Your task to perform on an android device: clear all cookies in the chrome app Image 0: 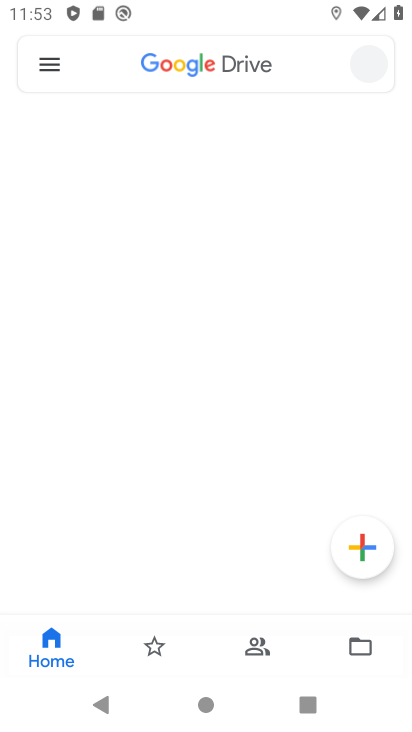
Step 0: drag from (217, 716) to (212, 71)
Your task to perform on an android device: clear all cookies in the chrome app Image 1: 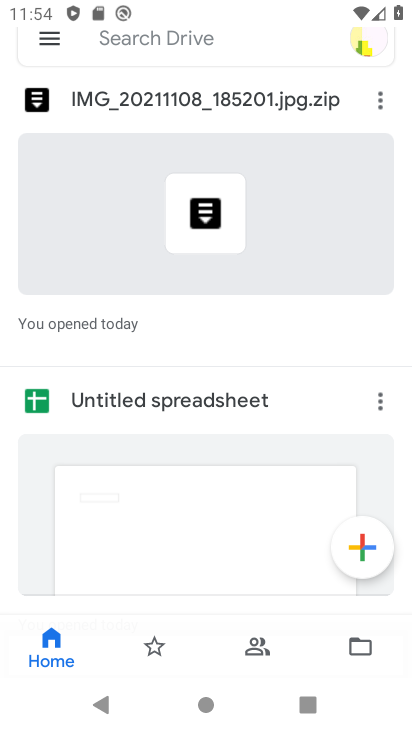
Step 1: press home button
Your task to perform on an android device: clear all cookies in the chrome app Image 2: 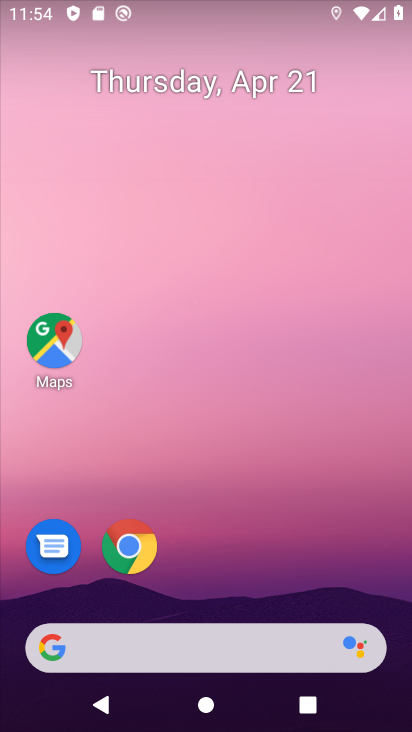
Step 2: click (129, 549)
Your task to perform on an android device: clear all cookies in the chrome app Image 3: 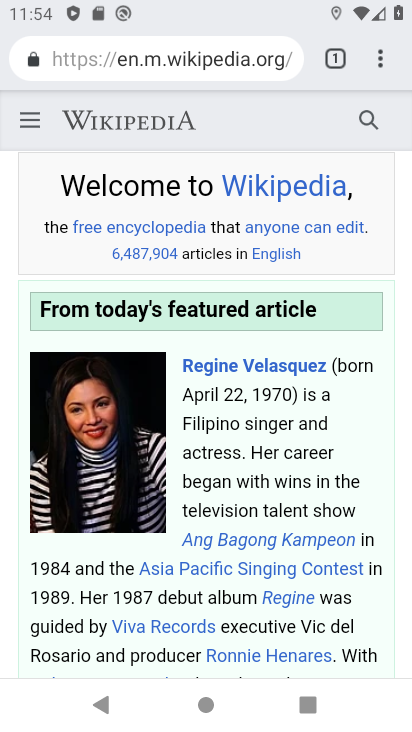
Step 3: drag from (378, 60) to (202, 319)
Your task to perform on an android device: clear all cookies in the chrome app Image 4: 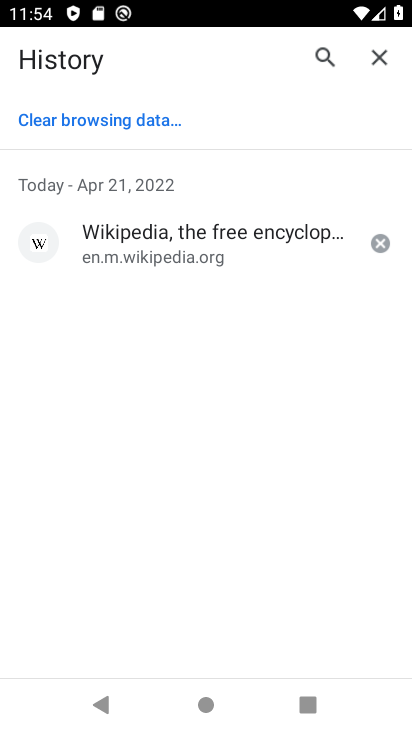
Step 4: click (112, 113)
Your task to perform on an android device: clear all cookies in the chrome app Image 5: 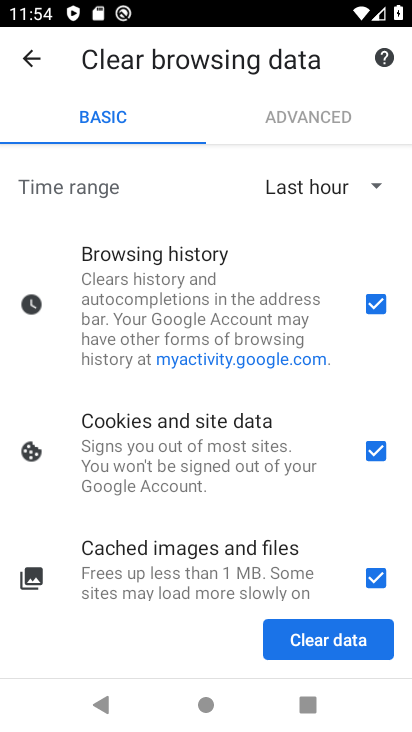
Step 5: click (378, 576)
Your task to perform on an android device: clear all cookies in the chrome app Image 6: 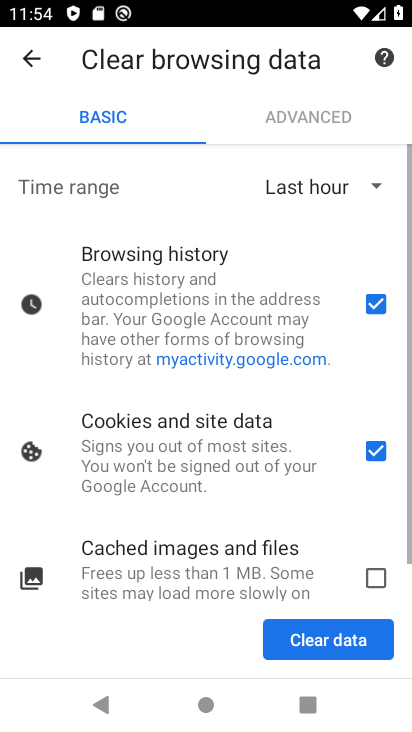
Step 6: click (378, 301)
Your task to perform on an android device: clear all cookies in the chrome app Image 7: 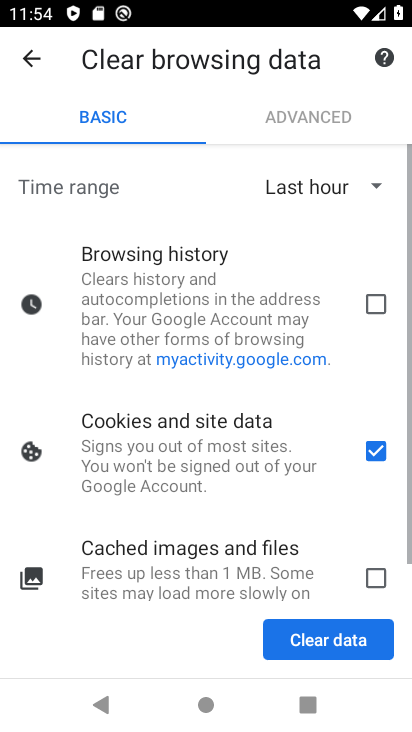
Step 7: click (330, 643)
Your task to perform on an android device: clear all cookies in the chrome app Image 8: 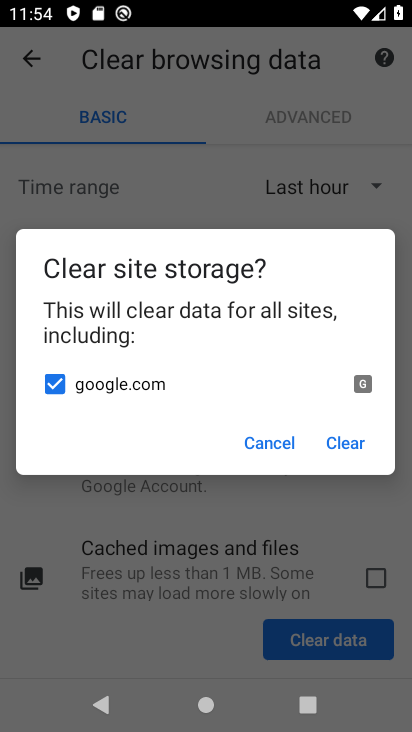
Step 8: click (342, 440)
Your task to perform on an android device: clear all cookies in the chrome app Image 9: 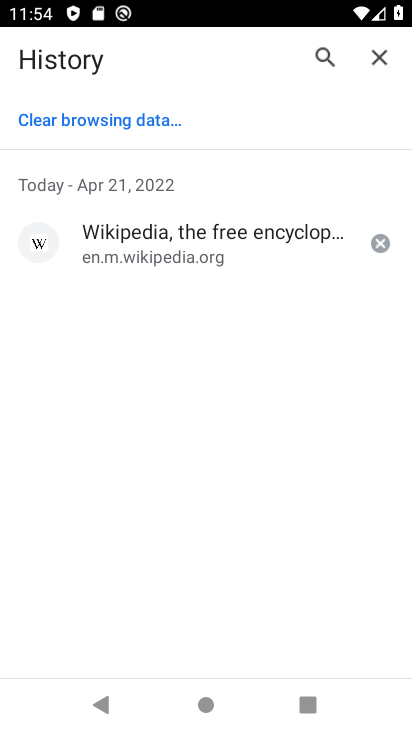
Step 9: task complete